Your task to perform on an android device: turn on translation in the chrome app Image 0: 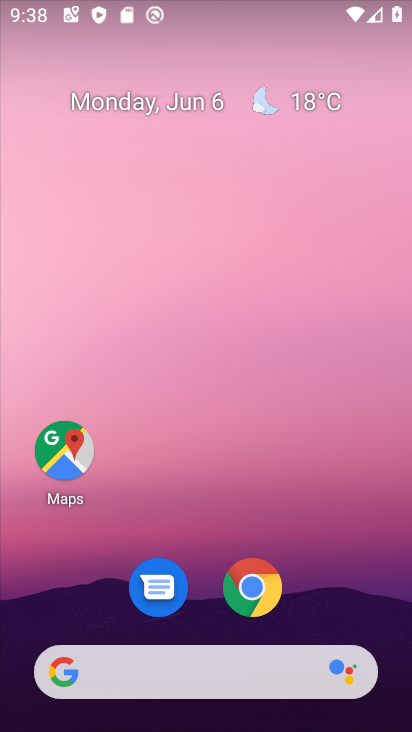
Step 0: click (261, 567)
Your task to perform on an android device: turn on translation in the chrome app Image 1: 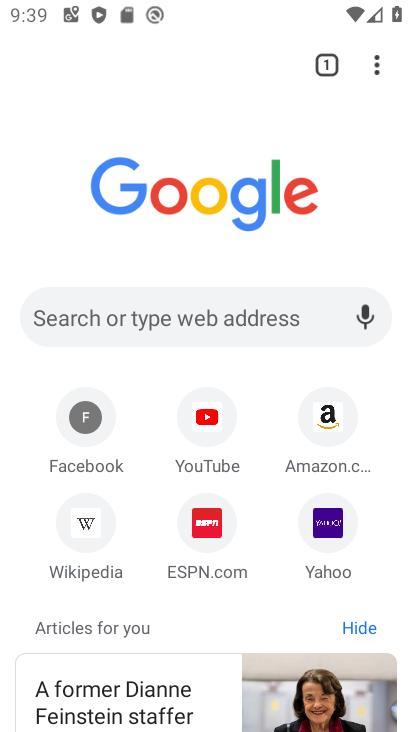
Step 1: click (371, 55)
Your task to perform on an android device: turn on translation in the chrome app Image 2: 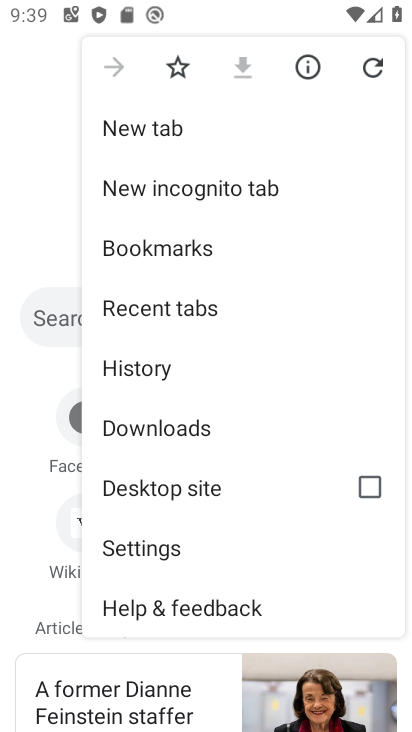
Step 2: drag from (331, 253) to (329, 303)
Your task to perform on an android device: turn on translation in the chrome app Image 3: 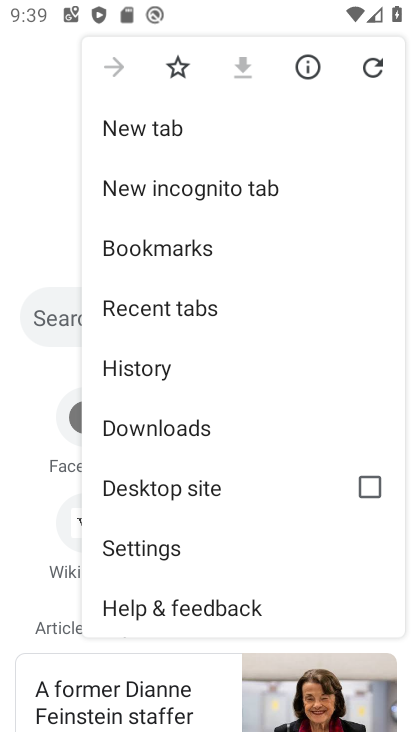
Step 3: click (158, 546)
Your task to perform on an android device: turn on translation in the chrome app Image 4: 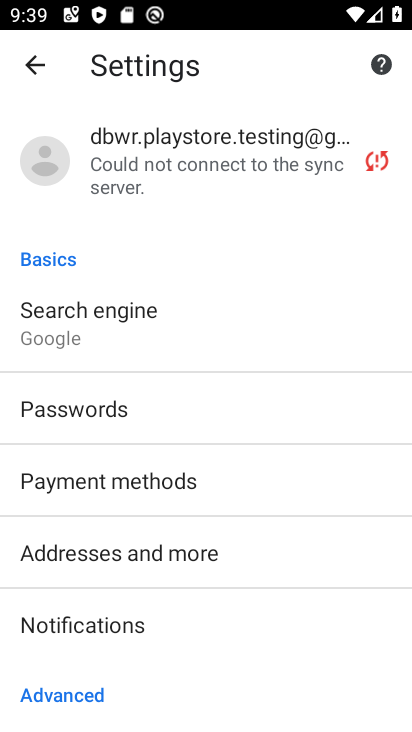
Step 4: drag from (222, 665) to (232, 606)
Your task to perform on an android device: turn on translation in the chrome app Image 5: 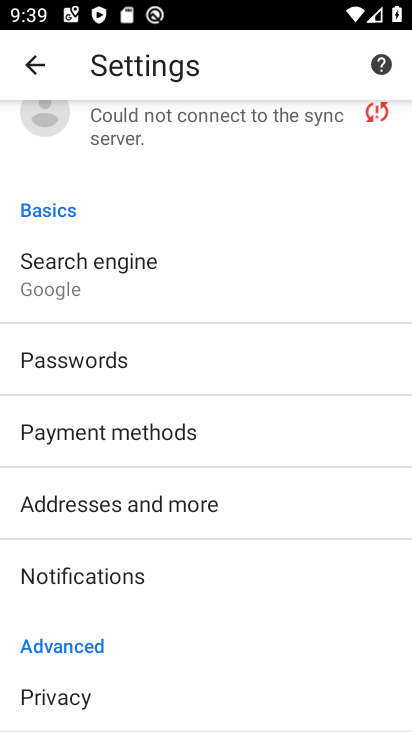
Step 5: click (74, 697)
Your task to perform on an android device: turn on translation in the chrome app Image 6: 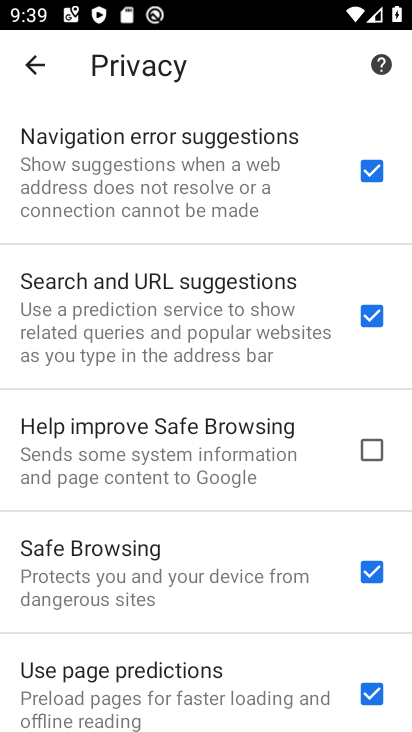
Step 6: drag from (222, 579) to (131, 214)
Your task to perform on an android device: turn on translation in the chrome app Image 7: 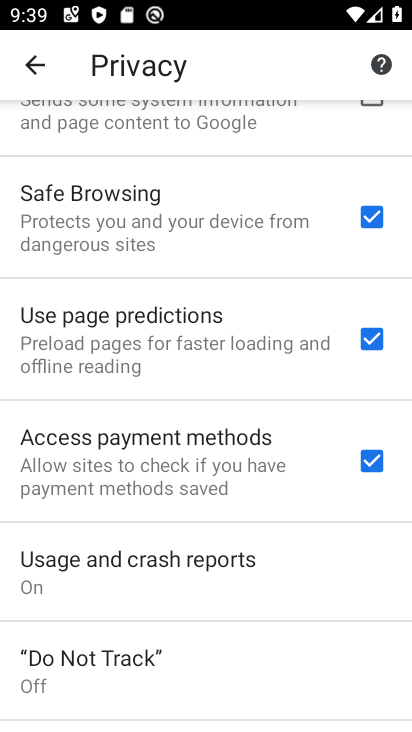
Step 7: drag from (161, 606) to (130, 230)
Your task to perform on an android device: turn on translation in the chrome app Image 8: 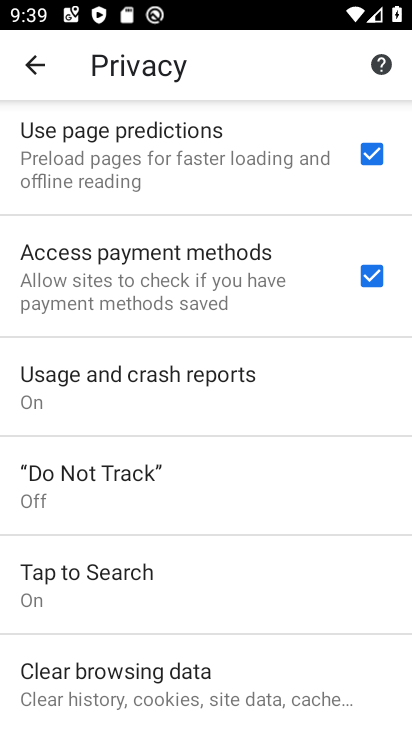
Step 8: press back button
Your task to perform on an android device: turn on translation in the chrome app Image 9: 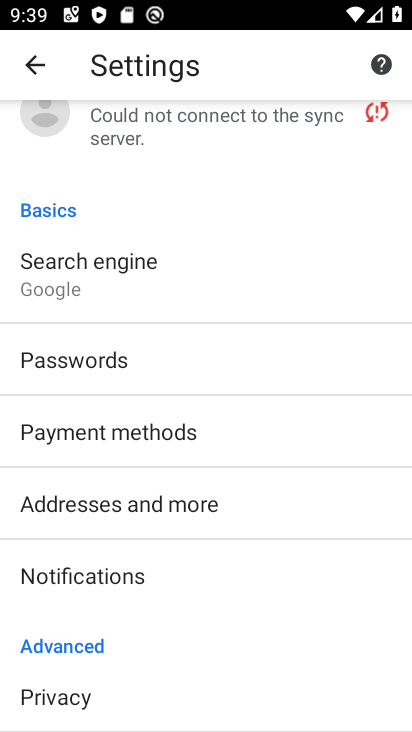
Step 9: drag from (182, 612) to (135, 240)
Your task to perform on an android device: turn on translation in the chrome app Image 10: 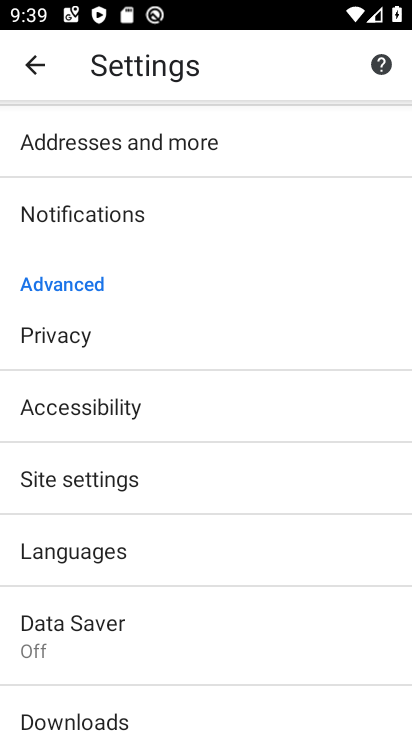
Step 10: click (171, 563)
Your task to perform on an android device: turn on translation in the chrome app Image 11: 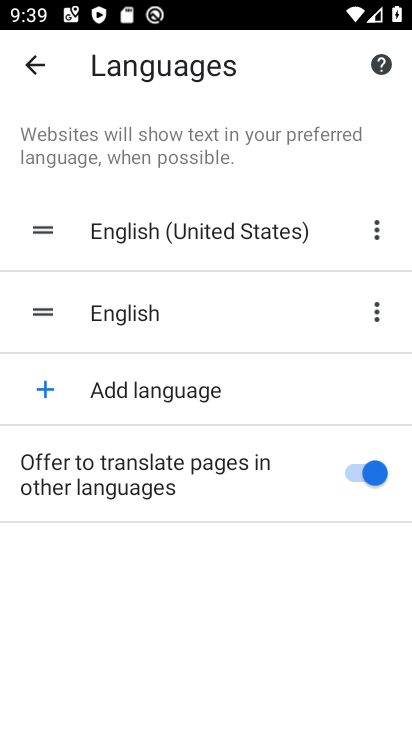
Step 11: task complete